Your task to perform on an android device: What's on my calendar tomorrow? Image 0: 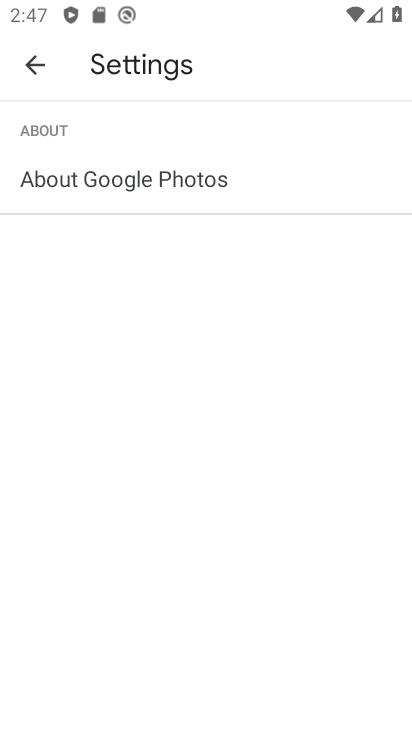
Step 0: press home button
Your task to perform on an android device: What's on my calendar tomorrow? Image 1: 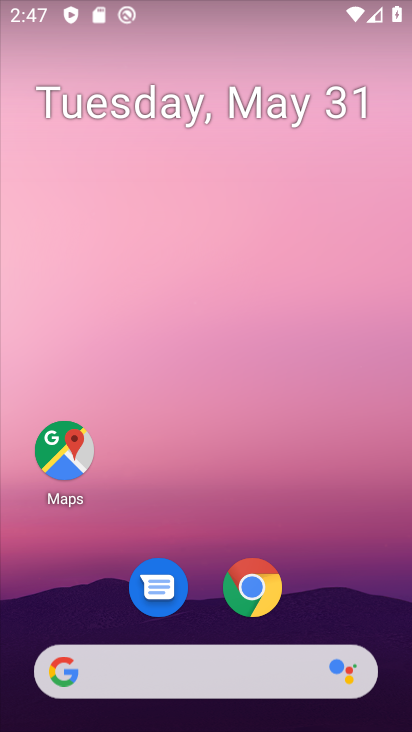
Step 1: drag from (313, 606) to (336, 26)
Your task to perform on an android device: What's on my calendar tomorrow? Image 2: 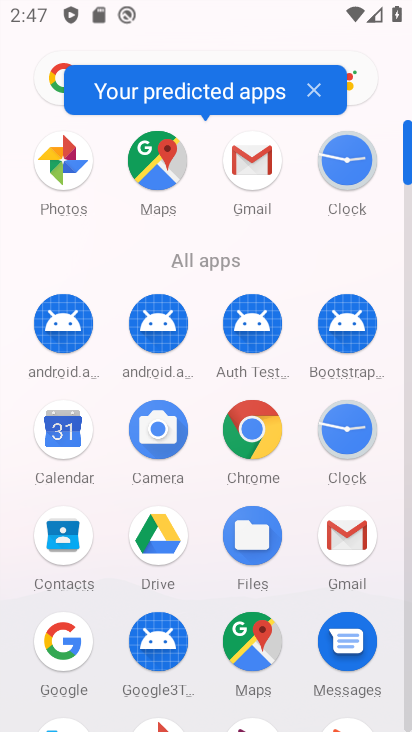
Step 2: click (64, 432)
Your task to perform on an android device: What's on my calendar tomorrow? Image 3: 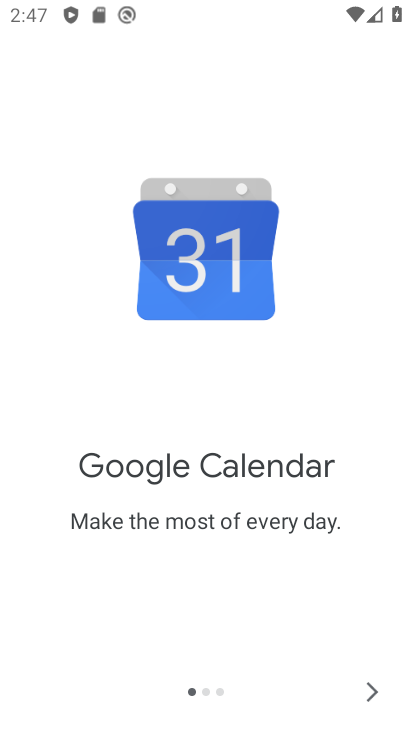
Step 3: click (370, 690)
Your task to perform on an android device: What's on my calendar tomorrow? Image 4: 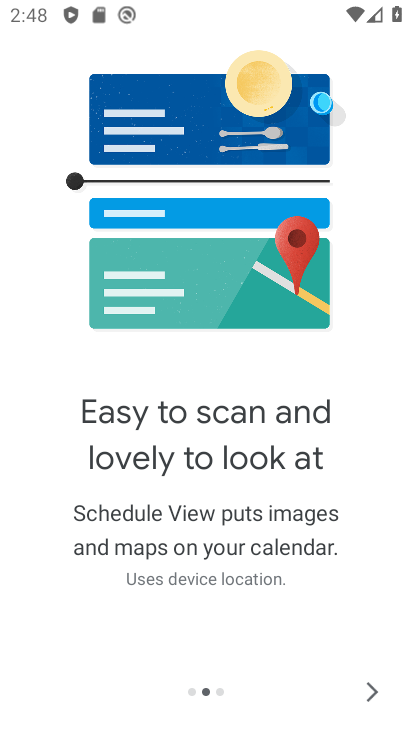
Step 4: click (370, 689)
Your task to perform on an android device: What's on my calendar tomorrow? Image 5: 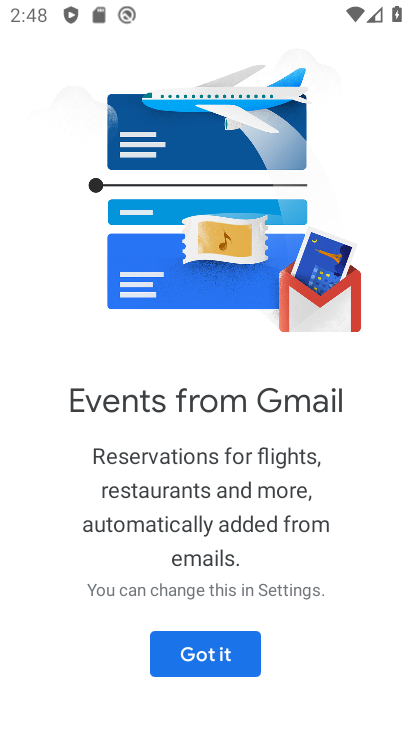
Step 5: click (202, 658)
Your task to perform on an android device: What's on my calendar tomorrow? Image 6: 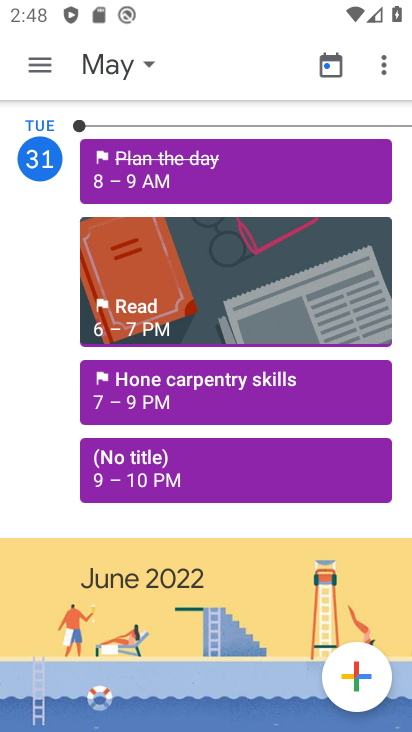
Step 6: click (102, 74)
Your task to perform on an android device: What's on my calendar tomorrow? Image 7: 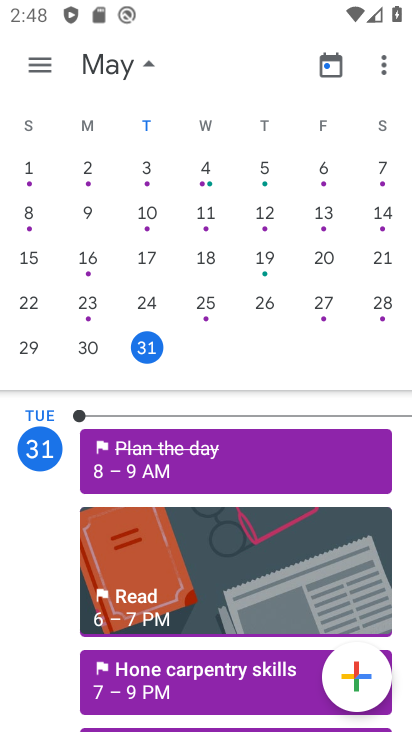
Step 7: drag from (332, 283) to (49, 322)
Your task to perform on an android device: What's on my calendar tomorrow? Image 8: 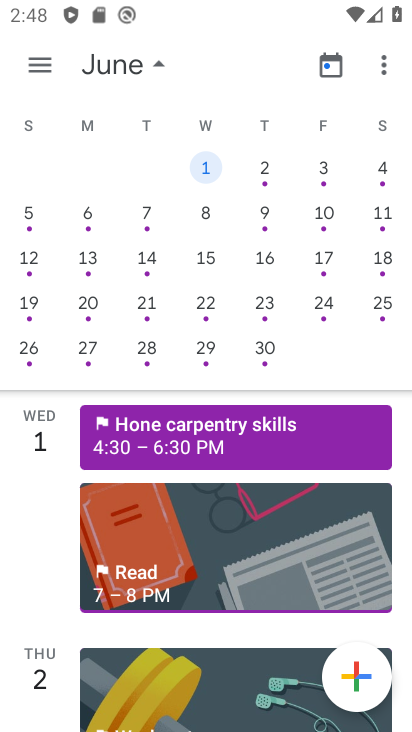
Step 8: click (200, 168)
Your task to perform on an android device: What's on my calendar tomorrow? Image 9: 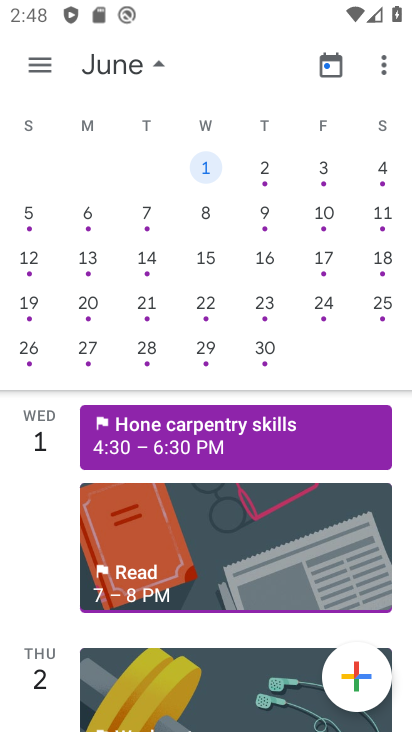
Step 9: task complete